Your task to perform on an android device: check the backup settings in the google photos Image 0: 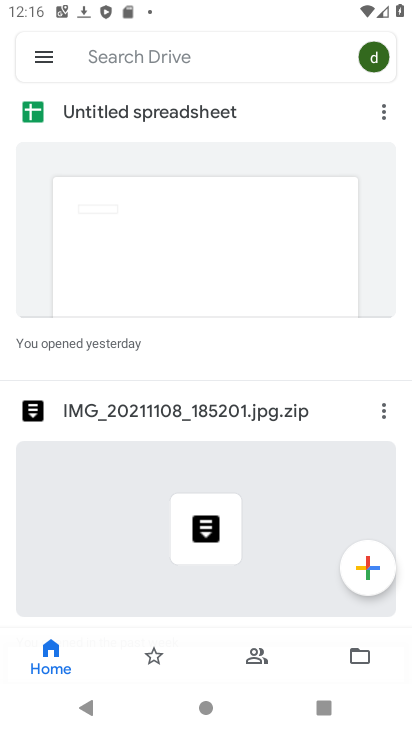
Step 0: press home button
Your task to perform on an android device: check the backup settings in the google photos Image 1: 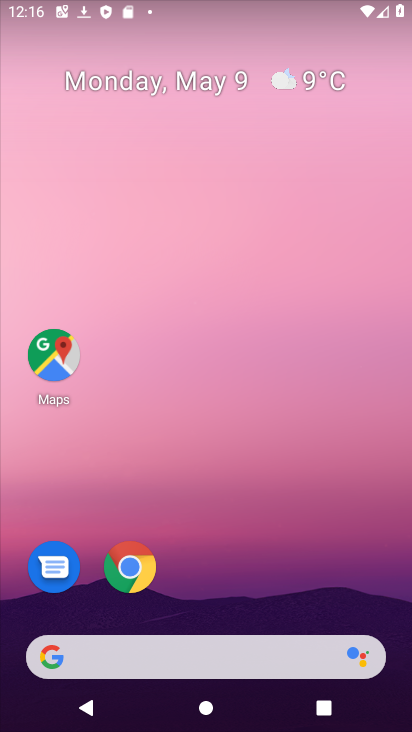
Step 1: drag from (287, 676) to (175, 163)
Your task to perform on an android device: check the backup settings in the google photos Image 2: 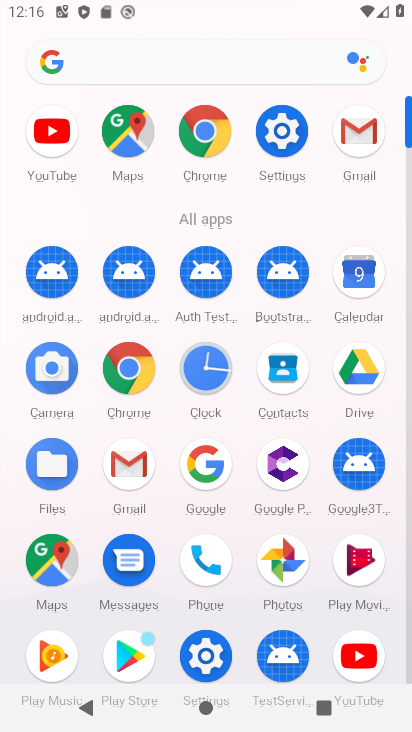
Step 2: click (275, 546)
Your task to perform on an android device: check the backup settings in the google photos Image 3: 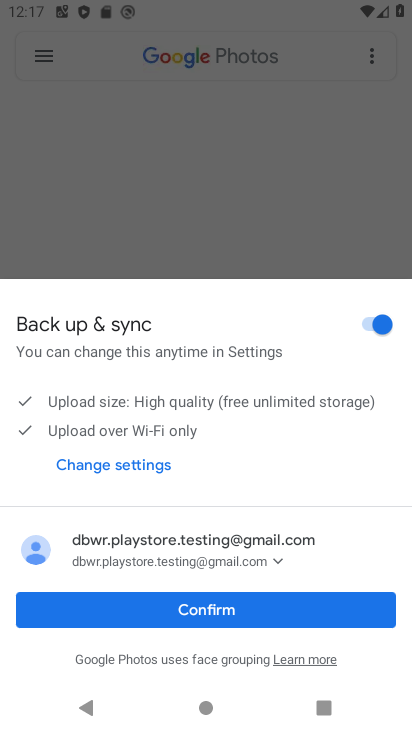
Step 3: click (234, 604)
Your task to perform on an android device: check the backup settings in the google photos Image 4: 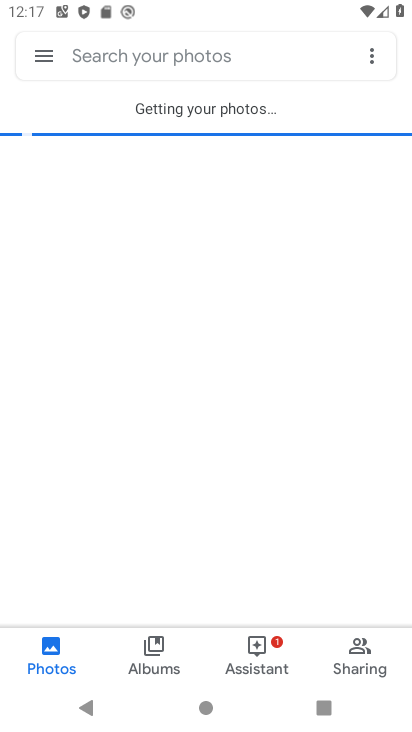
Step 4: click (39, 66)
Your task to perform on an android device: check the backup settings in the google photos Image 5: 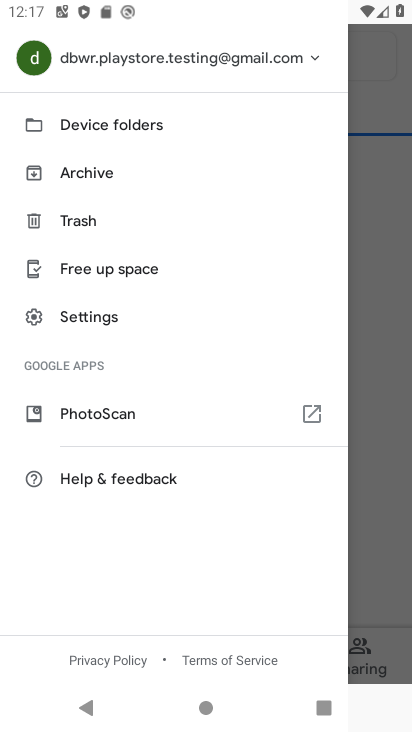
Step 5: click (123, 314)
Your task to perform on an android device: check the backup settings in the google photos Image 6: 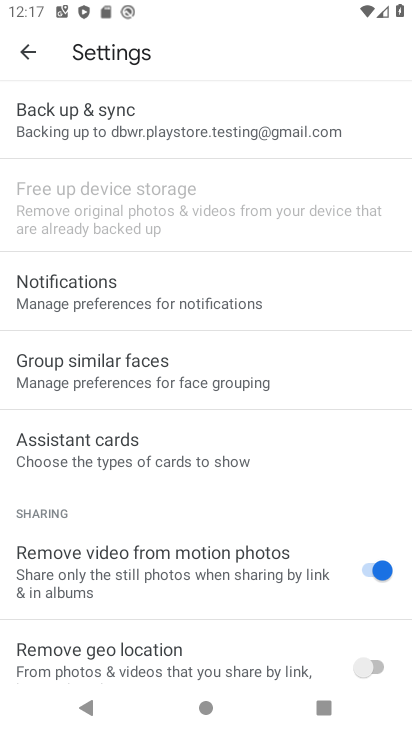
Step 6: click (161, 125)
Your task to perform on an android device: check the backup settings in the google photos Image 7: 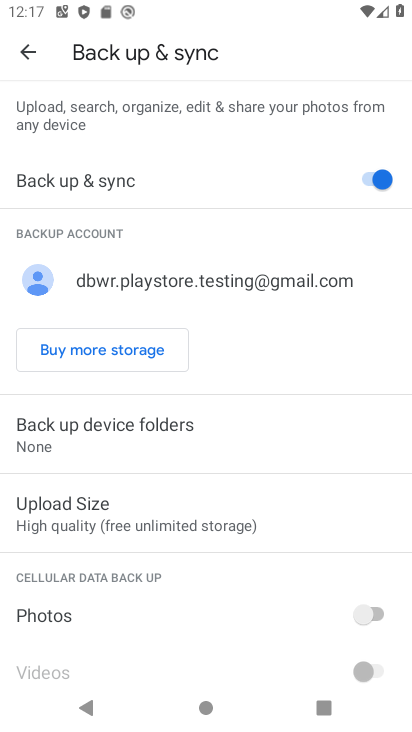
Step 7: task complete